Your task to perform on an android device: turn on the 24-hour format for clock Image 0: 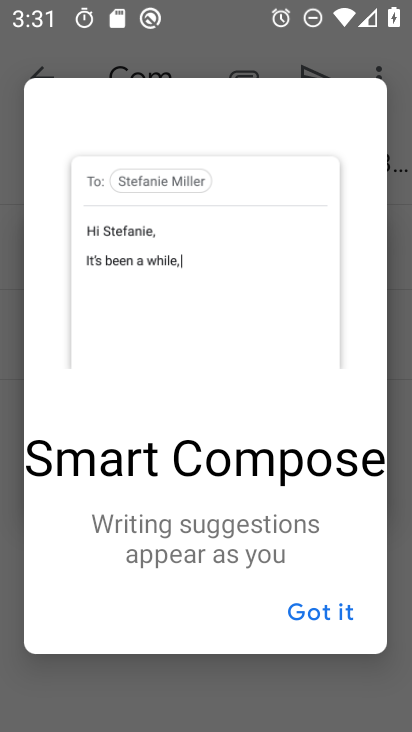
Step 0: press home button
Your task to perform on an android device: turn on the 24-hour format for clock Image 1: 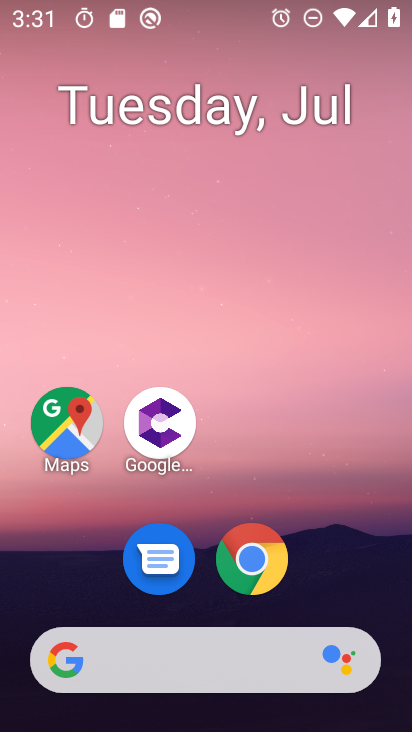
Step 1: drag from (350, 594) to (354, 86)
Your task to perform on an android device: turn on the 24-hour format for clock Image 2: 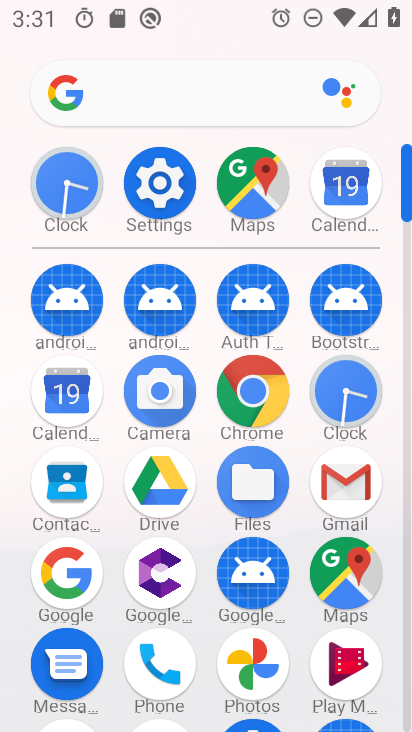
Step 2: click (353, 386)
Your task to perform on an android device: turn on the 24-hour format for clock Image 3: 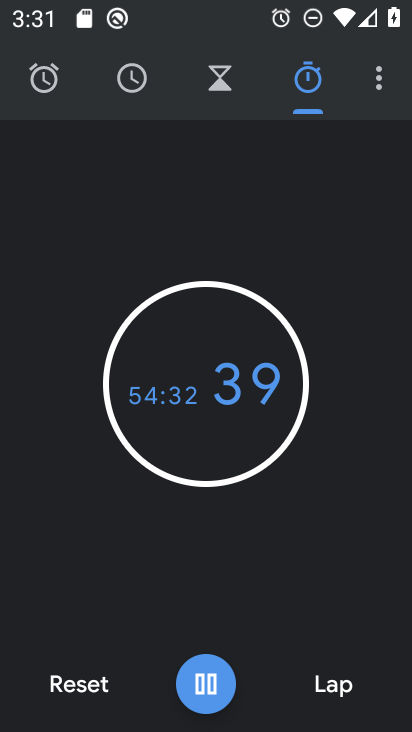
Step 3: click (382, 93)
Your task to perform on an android device: turn on the 24-hour format for clock Image 4: 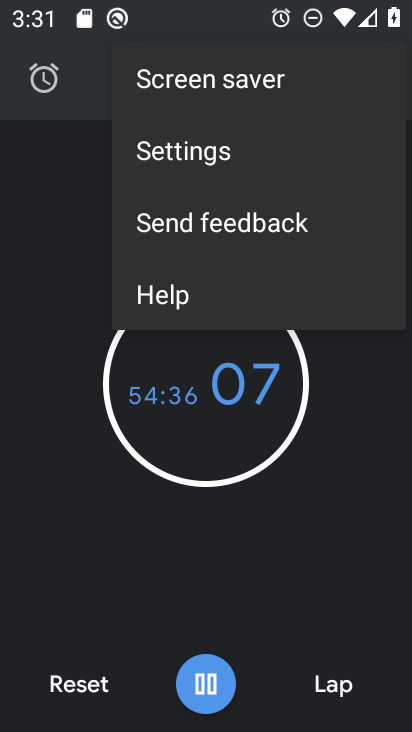
Step 4: click (260, 158)
Your task to perform on an android device: turn on the 24-hour format for clock Image 5: 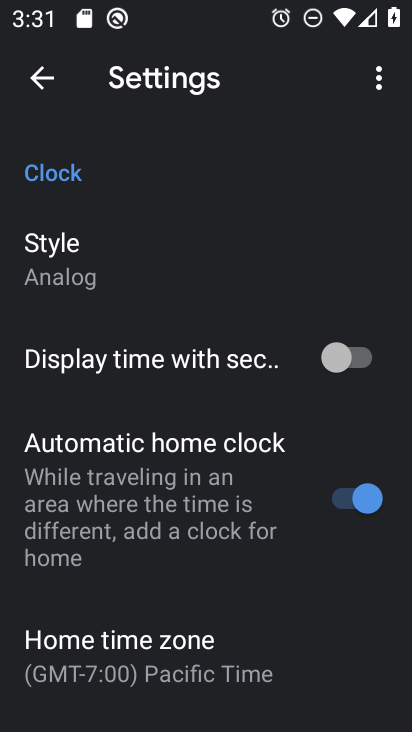
Step 5: drag from (292, 502) to (310, 430)
Your task to perform on an android device: turn on the 24-hour format for clock Image 6: 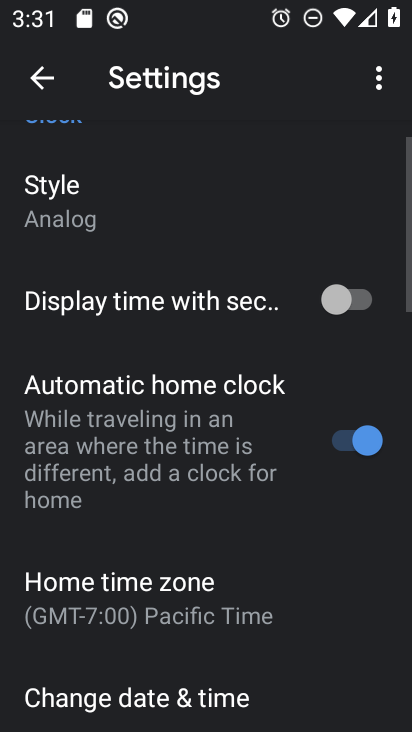
Step 6: drag from (310, 504) to (311, 441)
Your task to perform on an android device: turn on the 24-hour format for clock Image 7: 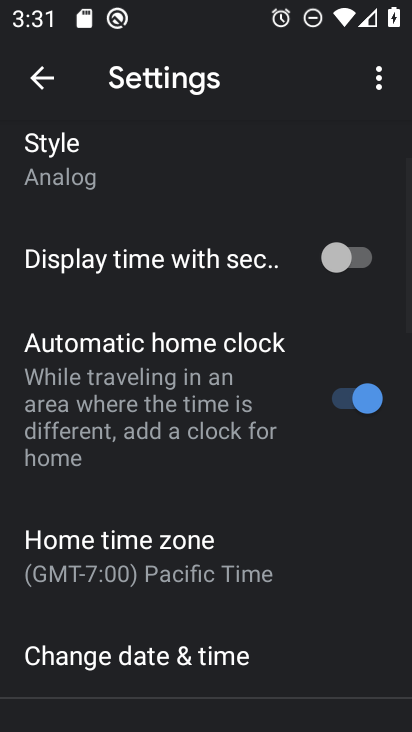
Step 7: drag from (299, 509) to (304, 445)
Your task to perform on an android device: turn on the 24-hour format for clock Image 8: 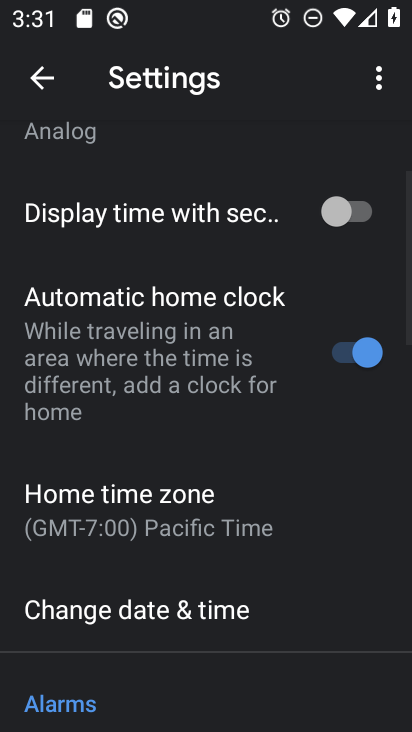
Step 8: drag from (306, 520) to (307, 446)
Your task to perform on an android device: turn on the 24-hour format for clock Image 9: 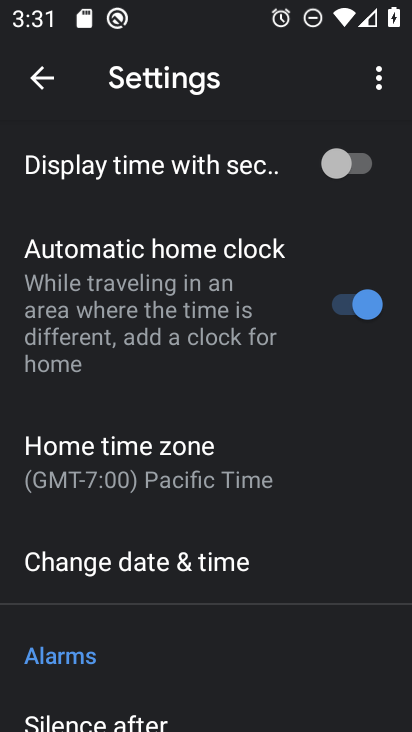
Step 9: drag from (307, 532) to (319, 443)
Your task to perform on an android device: turn on the 24-hour format for clock Image 10: 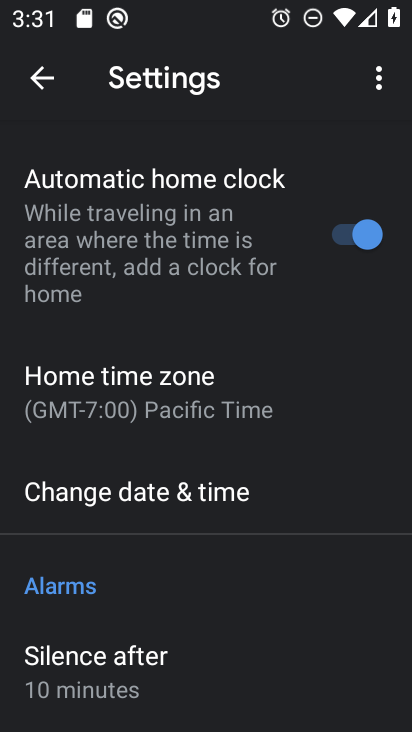
Step 10: drag from (320, 550) to (326, 458)
Your task to perform on an android device: turn on the 24-hour format for clock Image 11: 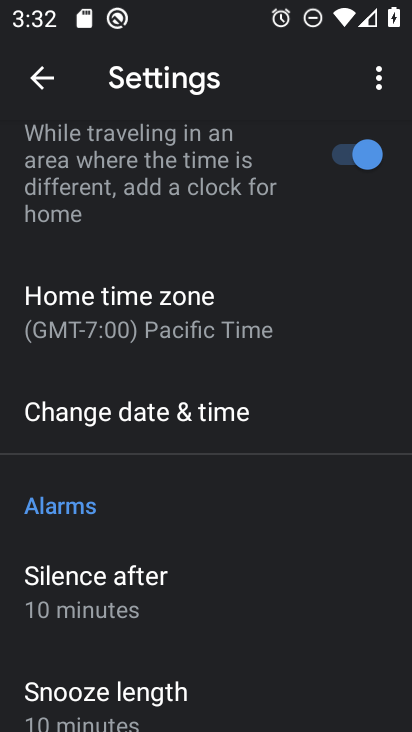
Step 11: click (262, 430)
Your task to perform on an android device: turn on the 24-hour format for clock Image 12: 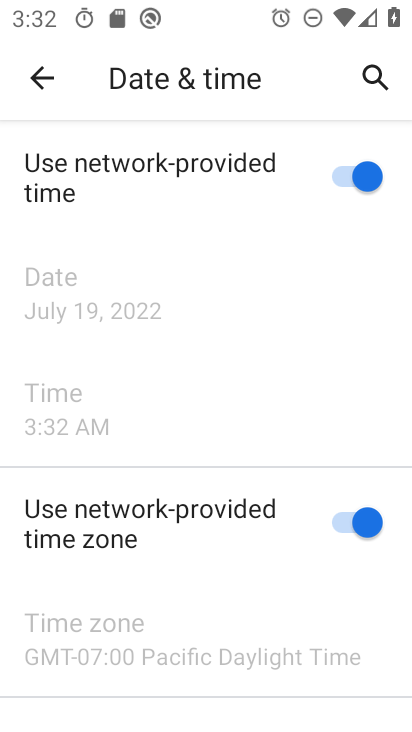
Step 12: drag from (282, 559) to (305, 454)
Your task to perform on an android device: turn on the 24-hour format for clock Image 13: 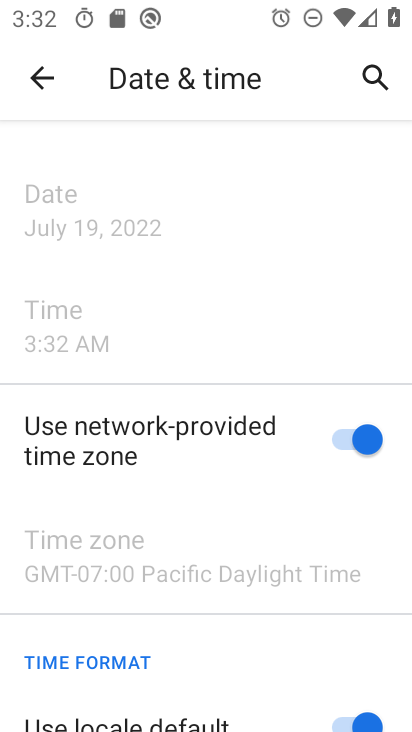
Step 13: drag from (284, 553) to (294, 457)
Your task to perform on an android device: turn on the 24-hour format for clock Image 14: 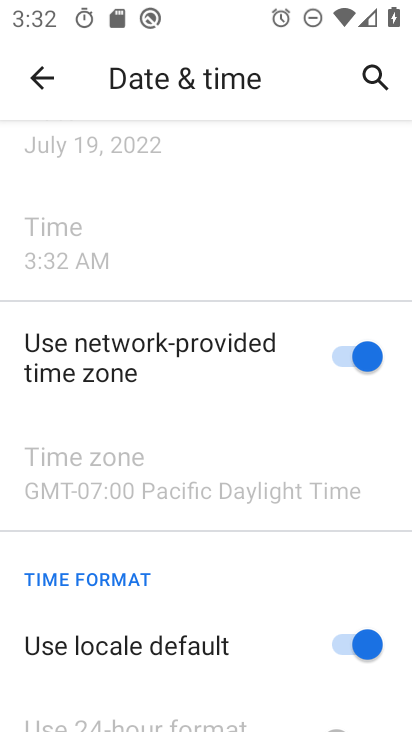
Step 14: drag from (265, 571) to (267, 463)
Your task to perform on an android device: turn on the 24-hour format for clock Image 15: 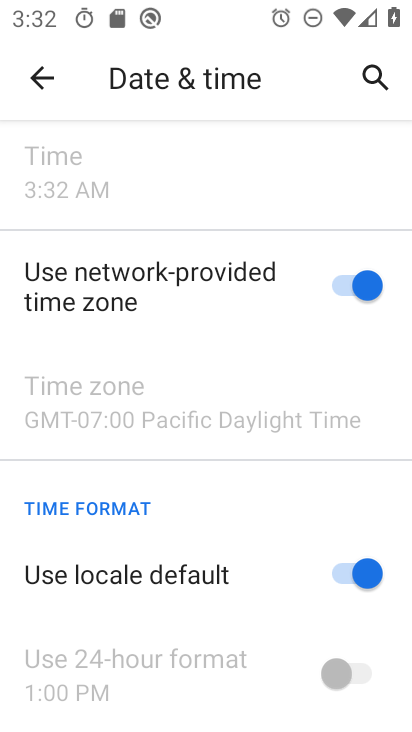
Step 15: drag from (265, 577) to (278, 465)
Your task to perform on an android device: turn on the 24-hour format for clock Image 16: 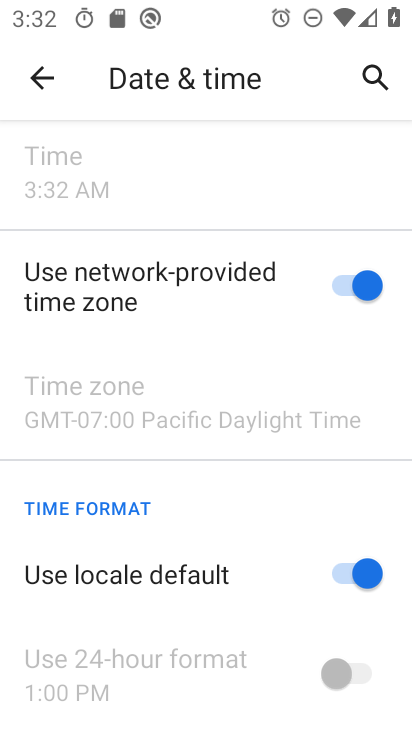
Step 16: click (352, 564)
Your task to perform on an android device: turn on the 24-hour format for clock Image 17: 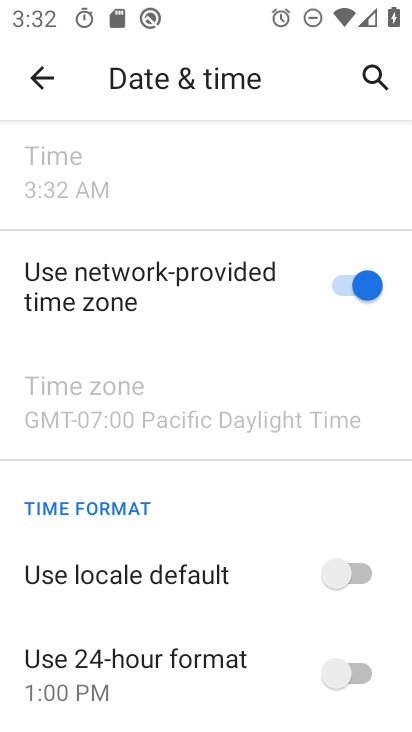
Step 17: click (331, 672)
Your task to perform on an android device: turn on the 24-hour format for clock Image 18: 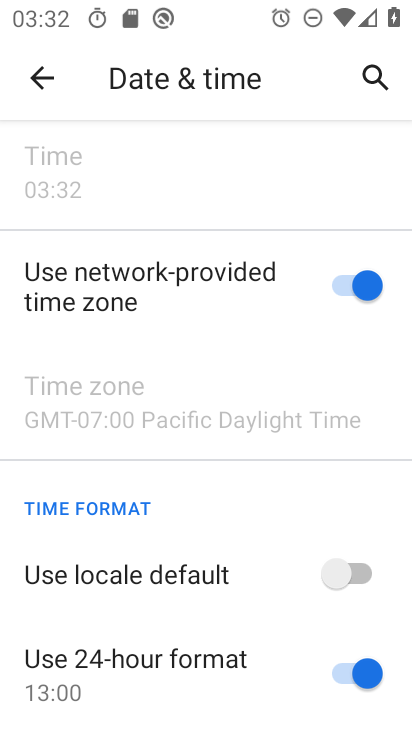
Step 18: task complete